Your task to perform on an android device: open device folders in google photos Image 0: 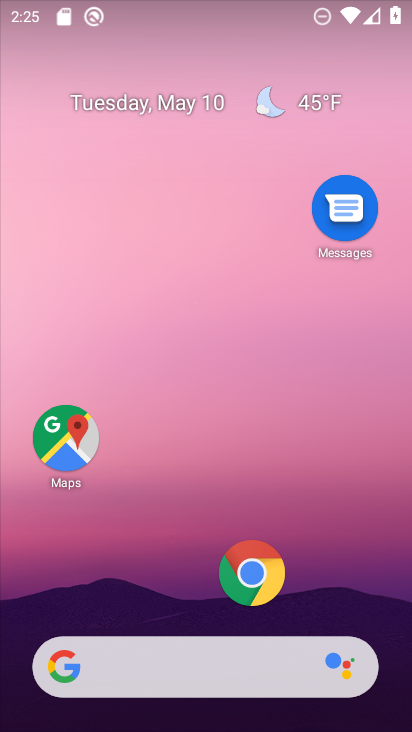
Step 0: drag from (192, 605) to (250, 249)
Your task to perform on an android device: open device folders in google photos Image 1: 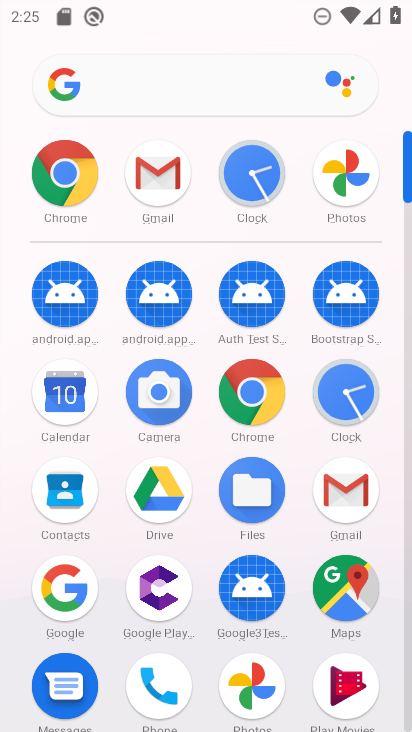
Step 1: drag from (219, 679) to (213, 457)
Your task to perform on an android device: open device folders in google photos Image 2: 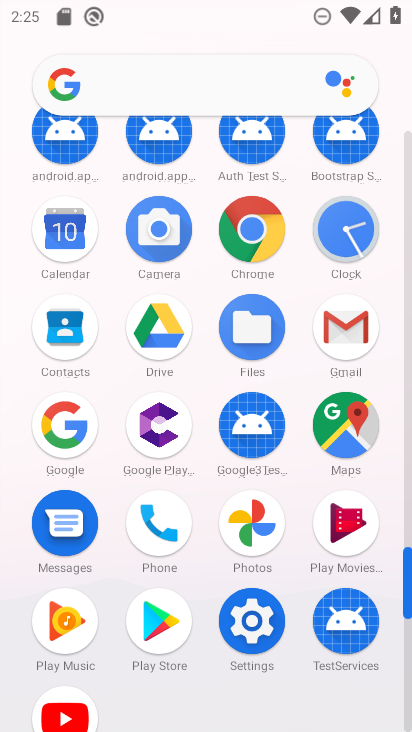
Step 2: click (257, 525)
Your task to perform on an android device: open device folders in google photos Image 3: 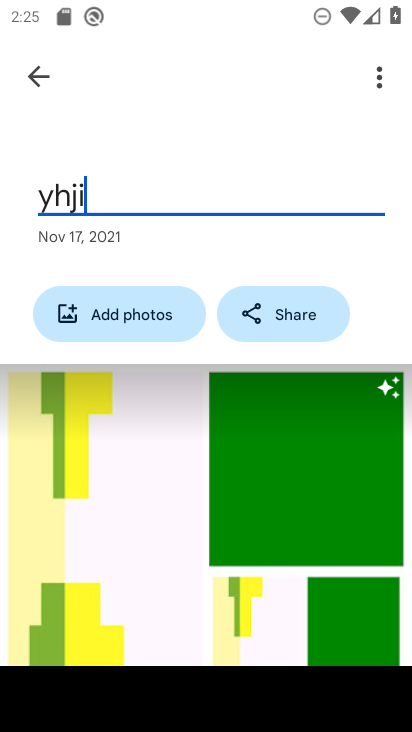
Step 3: click (394, 332)
Your task to perform on an android device: open device folders in google photos Image 4: 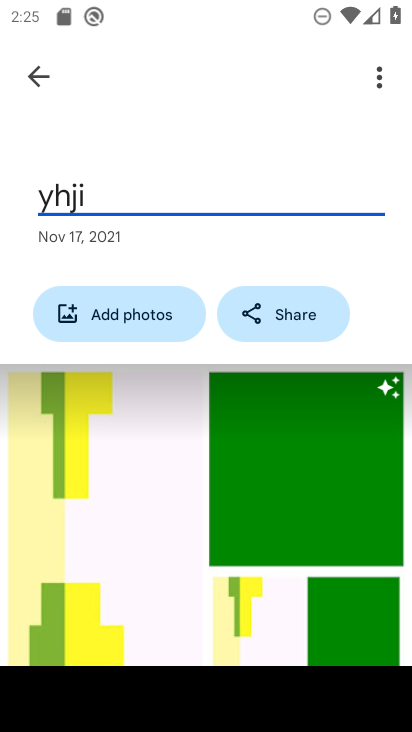
Step 4: drag from (212, 634) to (239, 171)
Your task to perform on an android device: open device folders in google photos Image 5: 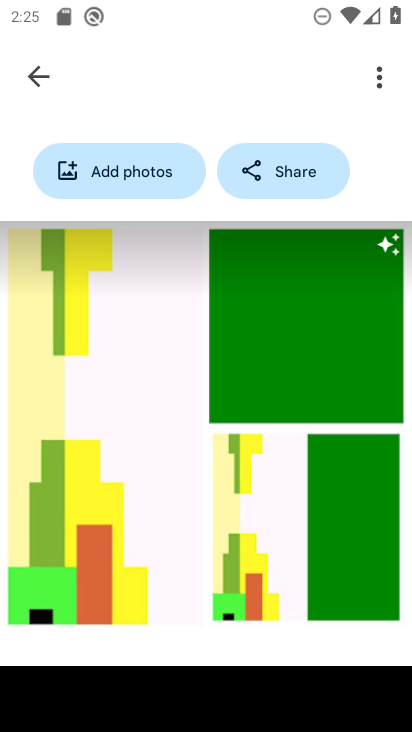
Step 5: drag from (208, 481) to (252, 169)
Your task to perform on an android device: open device folders in google photos Image 6: 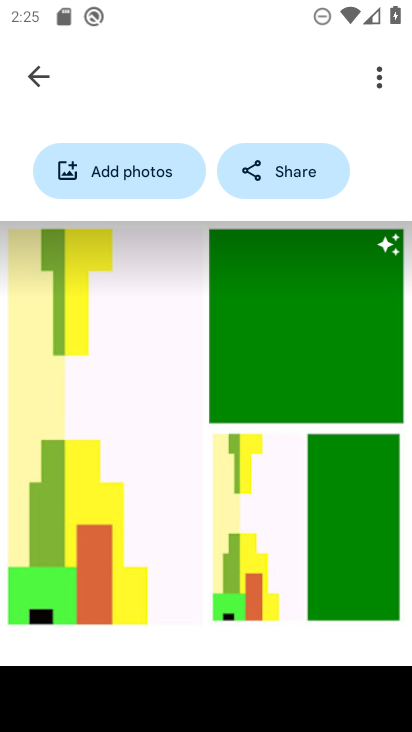
Step 6: drag from (346, 505) to (1, 141)
Your task to perform on an android device: open device folders in google photos Image 7: 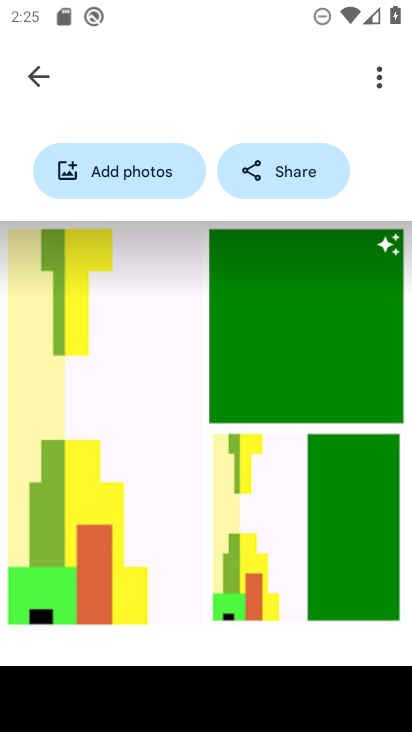
Step 7: click (36, 62)
Your task to perform on an android device: open device folders in google photos Image 8: 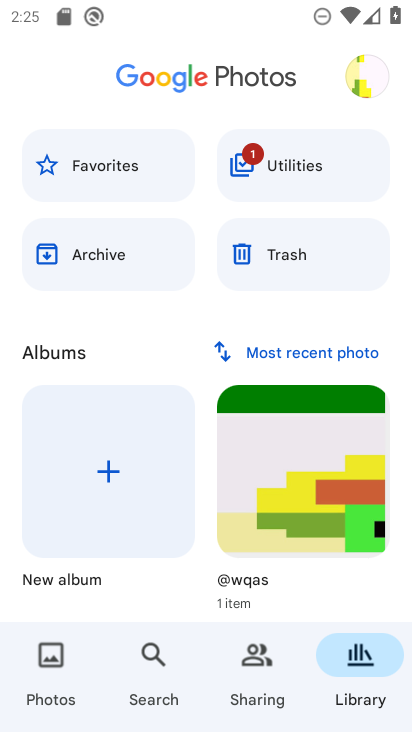
Step 8: task complete